Your task to perform on an android device: turn on airplane mode Image 0: 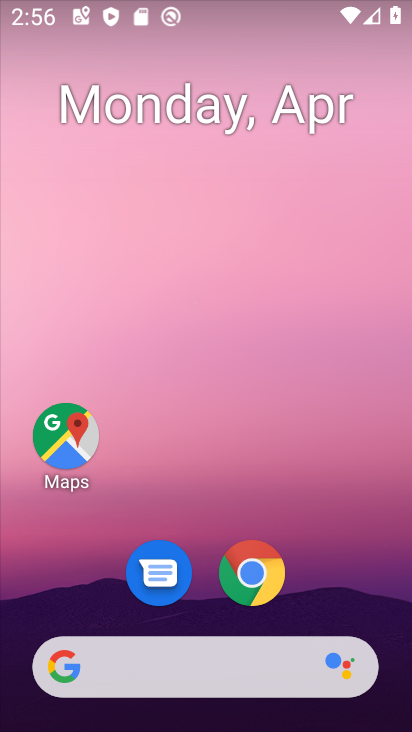
Step 0: drag from (371, 563) to (360, 103)
Your task to perform on an android device: turn on airplane mode Image 1: 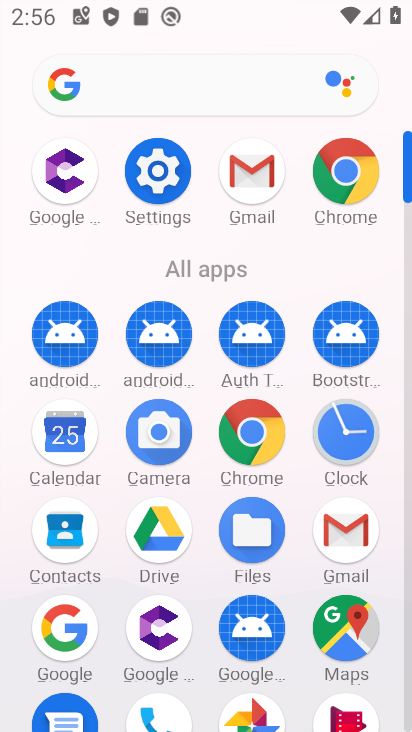
Step 1: click (165, 174)
Your task to perform on an android device: turn on airplane mode Image 2: 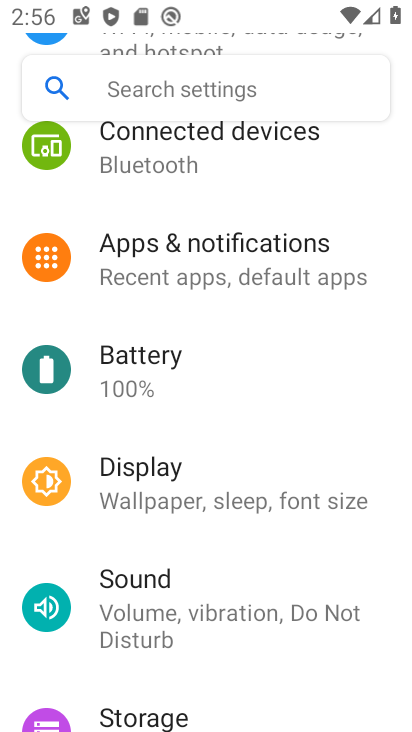
Step 2: drag from (388, 207) to (389, 389)
Your task to perform on an android device: turn on airplane mode Image 3: 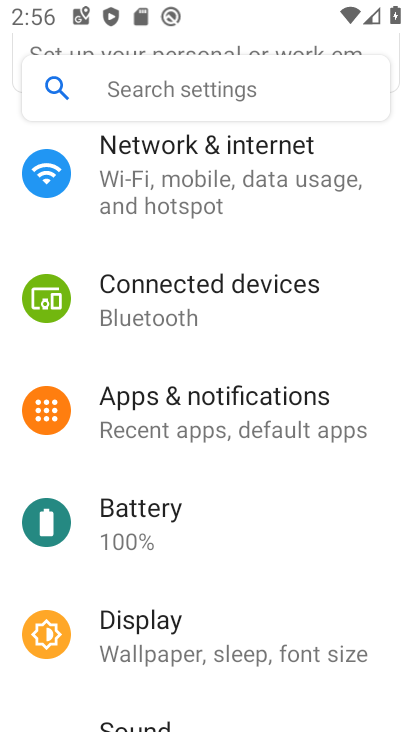
Step 3: drag from (377, 245) to (360, 450)
Your task to perform on an android device: turn on airplane mode Image 4: 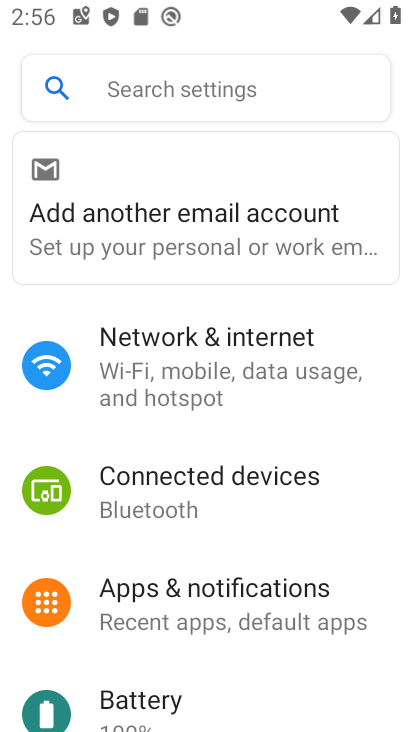
Step 4: click (275, 378)
Your task to perform on an android device: turn on airplane mode Image 5: 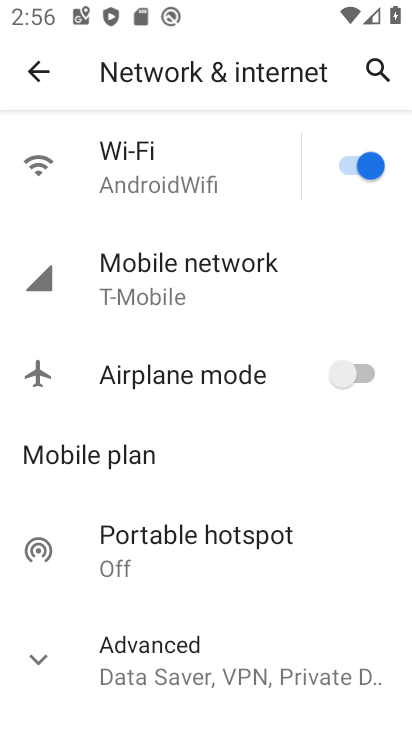
Step 5: click (332, 373)
Your task to perform on an android device: turn on airplane mode Image 6: 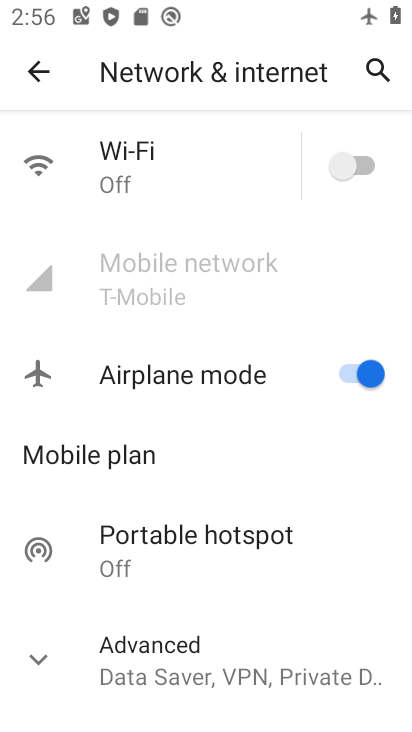
Step 6: task complete